Your task to perform on an android device: Open Google Image 0: 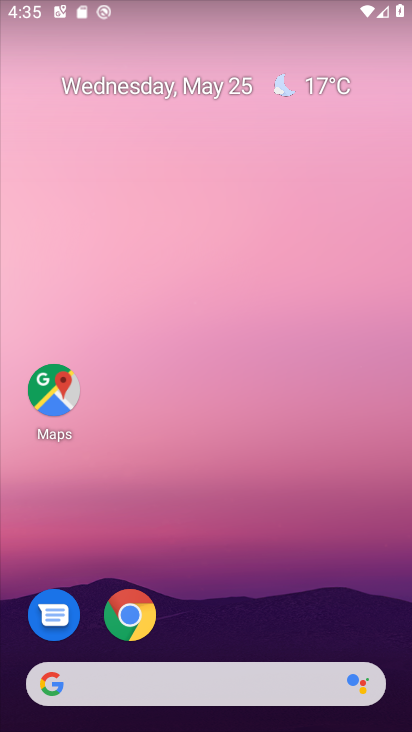
Step 0: drag from (324, 465) to (240, 22)
Your task to perform on an android device: Open Google Image 1: 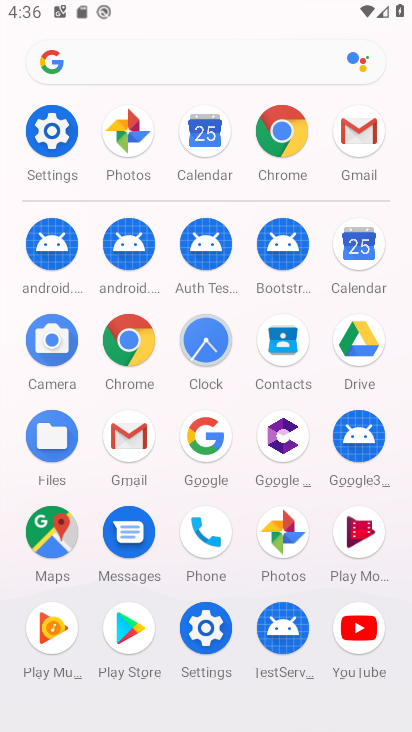
Step 1: click (217, 437)
Your task to perform on an android device: Open Google Image 2: 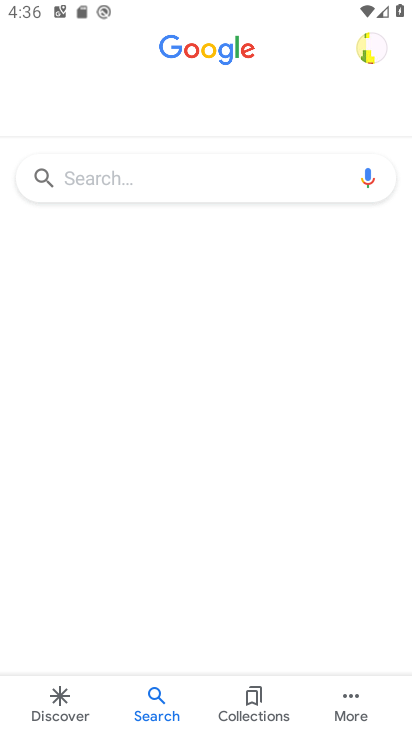
Step 2: task complete